Your task to perform on an android device: Search for vegetarian restaurants on Maps Image 0: 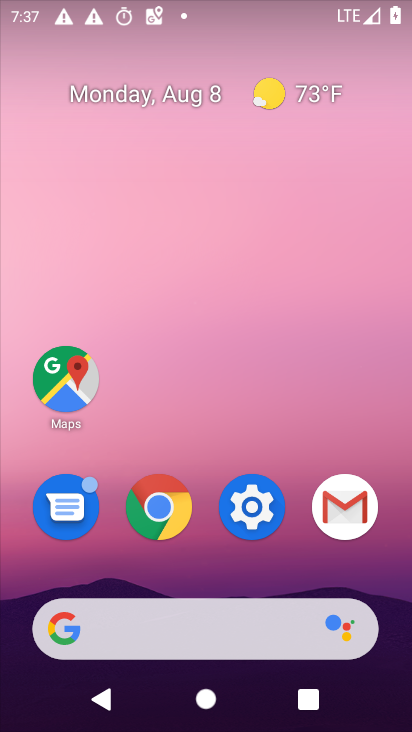
Step 0: click (57, 371)
Your task to perform on an android device: Search for vegetarian restaurants on Maps Image 1: 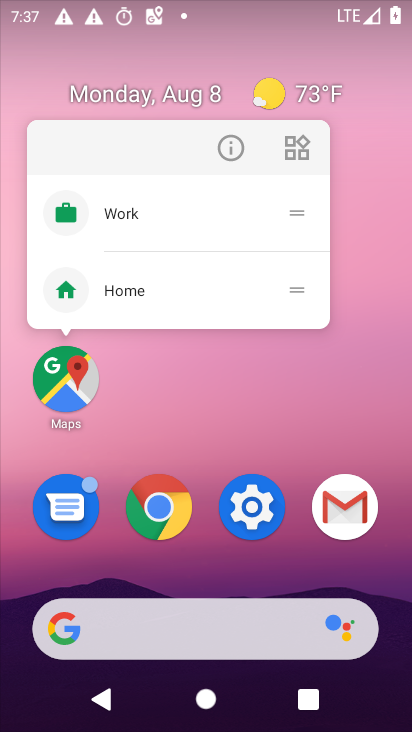
Step 1: click (75, 407)
Your task to perform on an android device: Search for vegetarian restaurants on Maps Image 2: 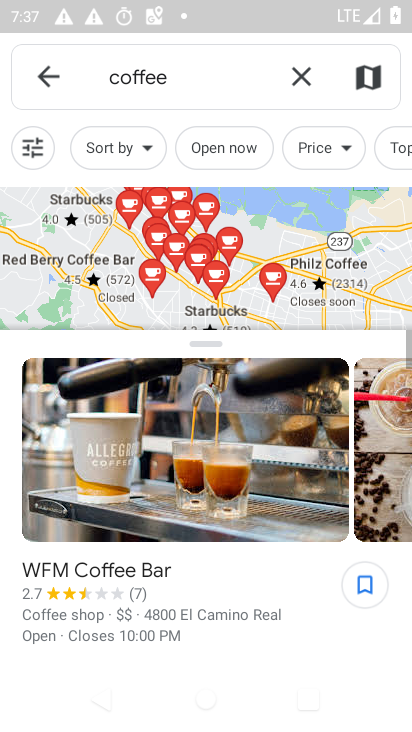
Step 2: click (296, 70)
Your task to perform on an android device: Search for vegetarian restaurants on Maps Image 3: 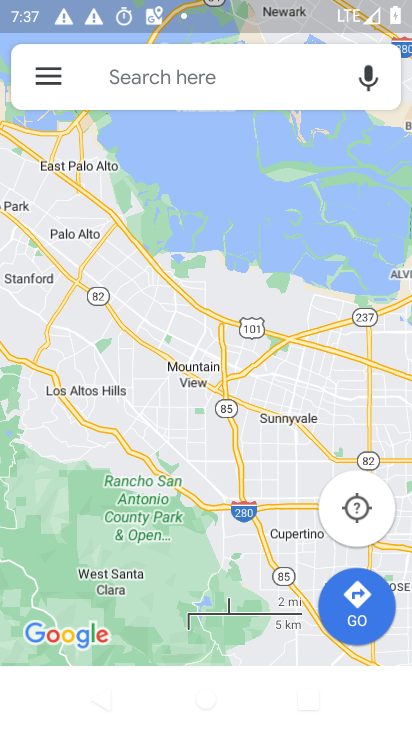
Step 3: click (217, 72)
Your task to perform on an android device: Search for vegetarian restaurants on Maps Image 4: 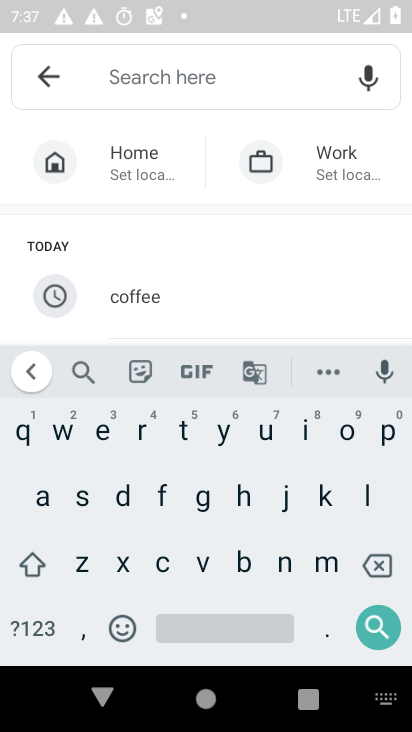
Step 4: click (204, 573)
Your task to perform on an android device: Search for vegetarian restaurants on Maps Image 5: 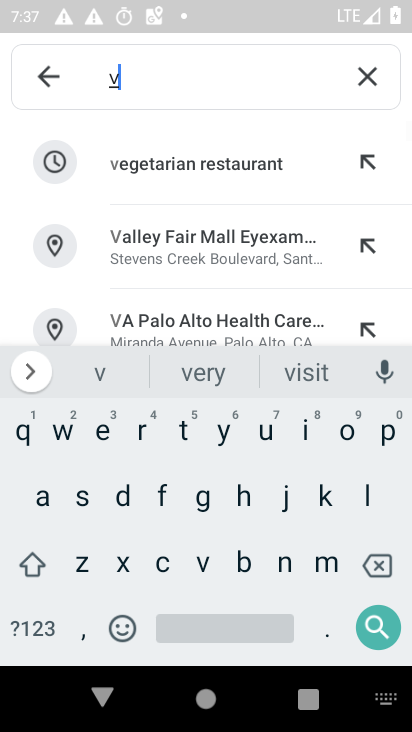
Step 5: click (194, 154)
Your task to perform on an android device: Search for vegetarian restaurants on Maps Image 6: 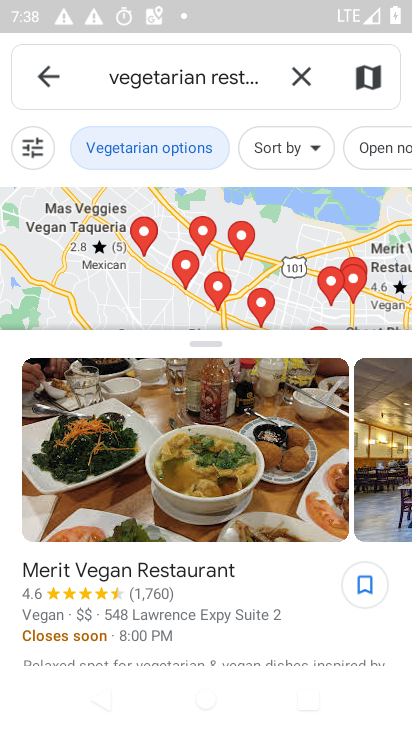
Step 6: task complete